Your task to perform on an android device: Open maps Image 0: 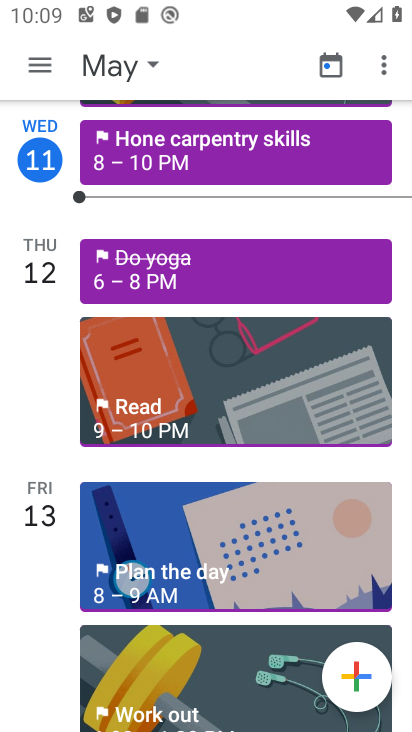
Step 0: press home button
Your task to perform on an android device: Open maps Image 1: 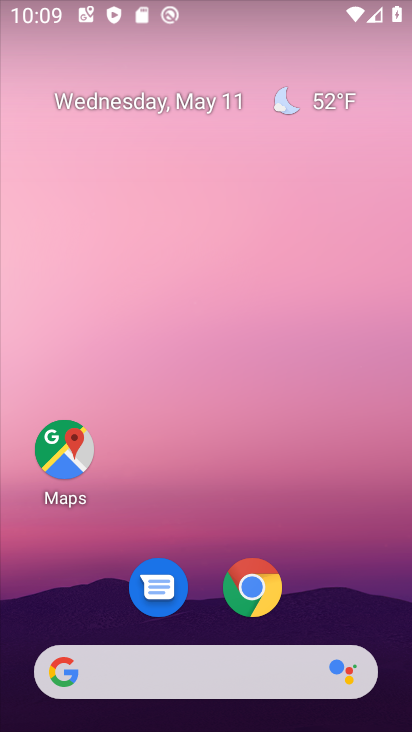
Step 1: drag from (235, 700) to (252, 305)
Your task to perform on an android device: Open maps Image 2: 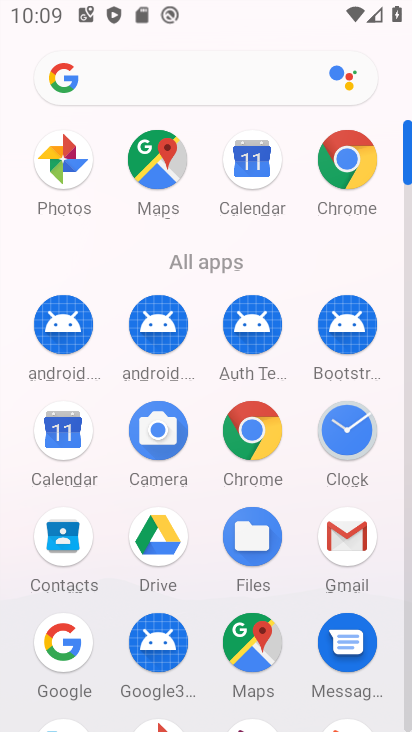
Step 2: click (148, 161)
Your task to perform on an android device: Open maps Image 3: 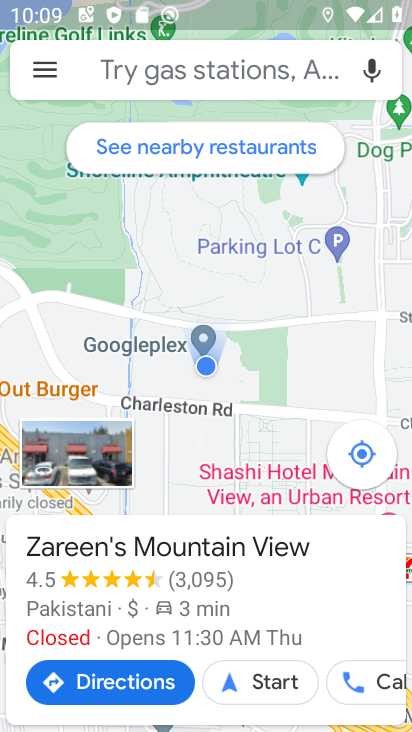
Step 3: click (219, 288)
Your task to perform on an android device: Open maps Image 4: 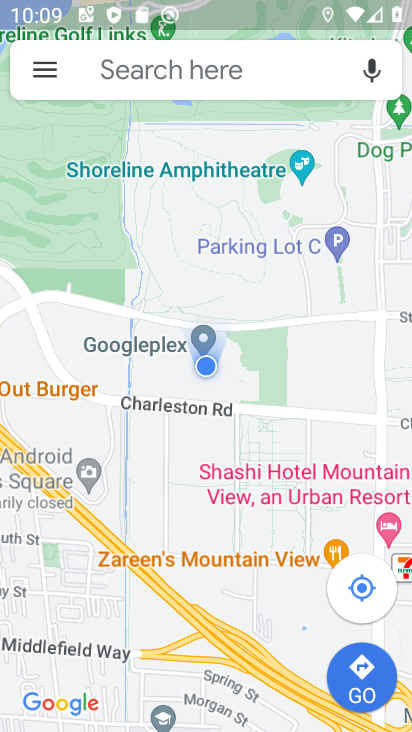
Step 4: task complete